Your task to perform on an android device: Open Google Chrome Image 0: 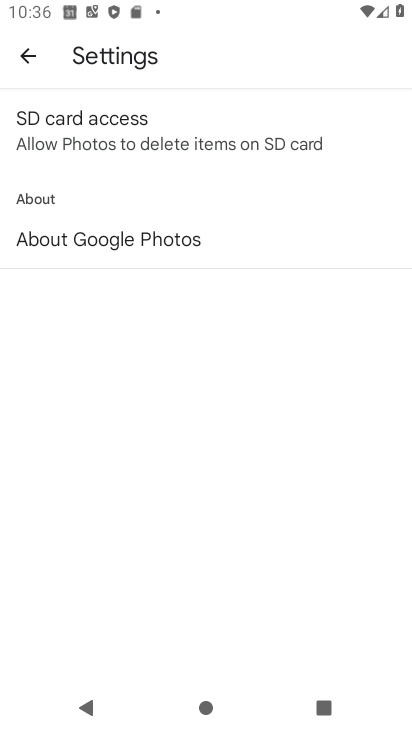
Step 0: press home button
Your task to perform on an android device: Open Google Chrome Image 1: 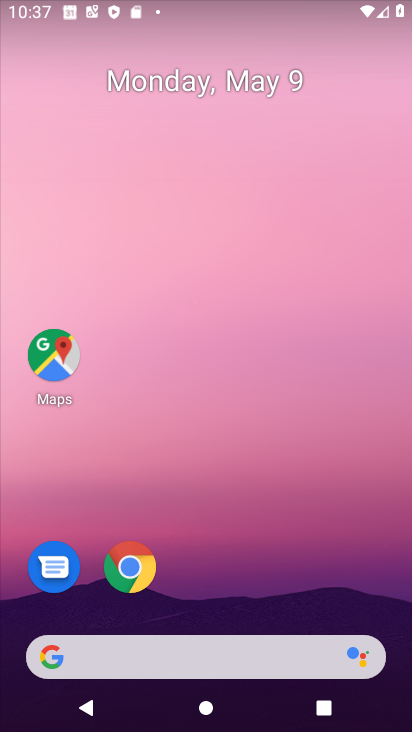
Step 1: click (148, 570)
Your task to perform on an android device: Open Google Chrome Image 2: 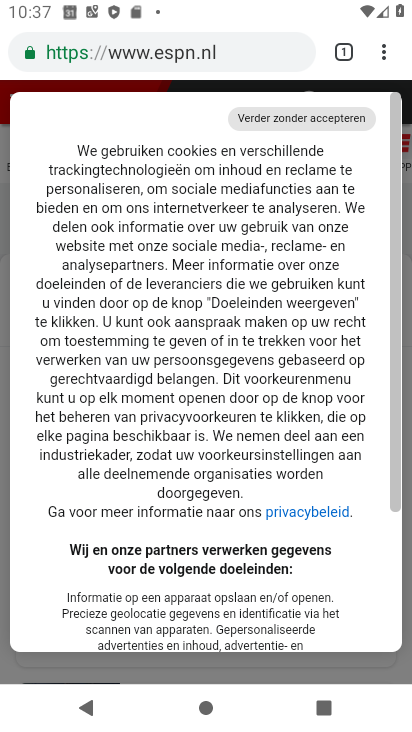
Step 2: task complete